Your task to perform on an android device: clear all cookies in the chrome app Image 0: 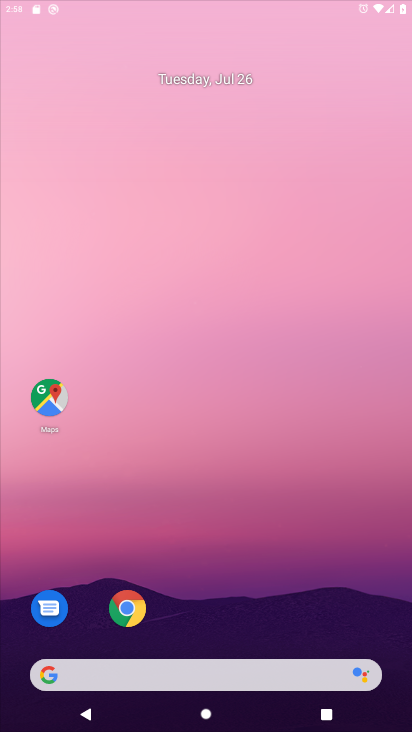
Step 0: press home button
Your task to perform on an android device: clear all cookies in the chrome app Image 1: 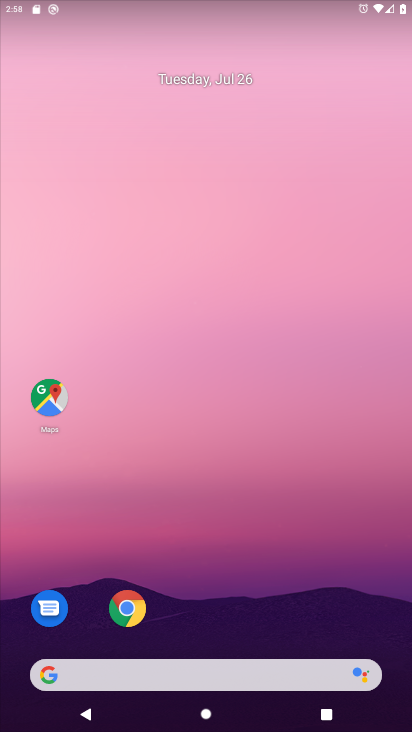
Step 1: click (127, 610)
Your task to perform on an android device: clear all cookies in the chrome app Image 2: 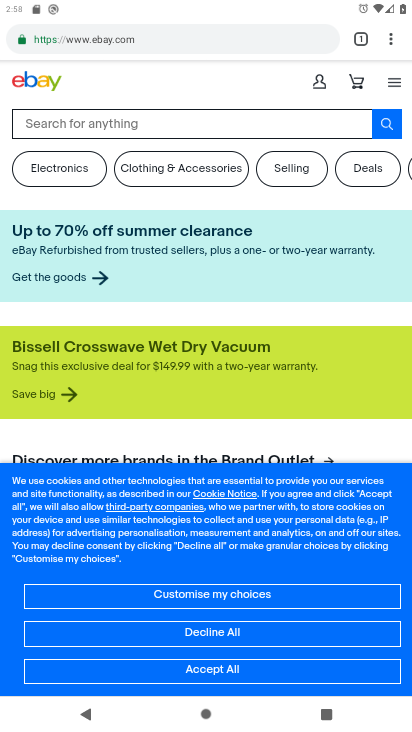
Step 2: click (394, 37)
Your task to perform on an android device: clear all cookies in the chrome app Image 3: 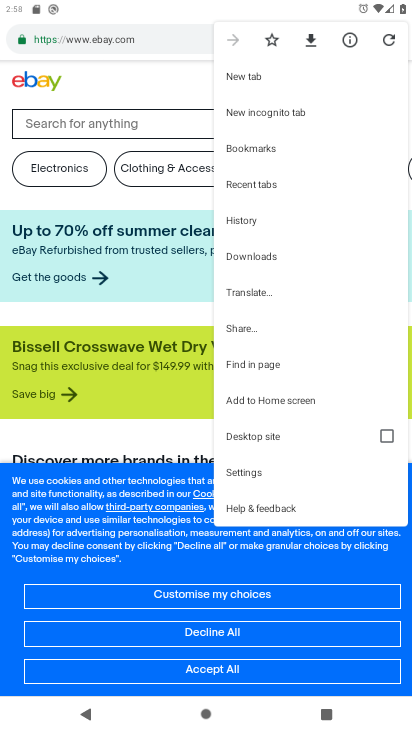
Step 3: click (263, 215)
Your task to perform on an android device: clear all cookies in the chrome app Image 4: 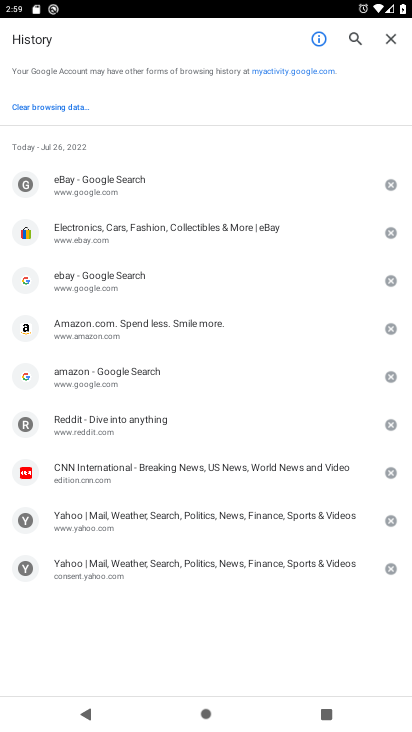
Step 4: click (49, 102)
Your task to perform on an android device: clear all cookies in the chrome app Image 5: 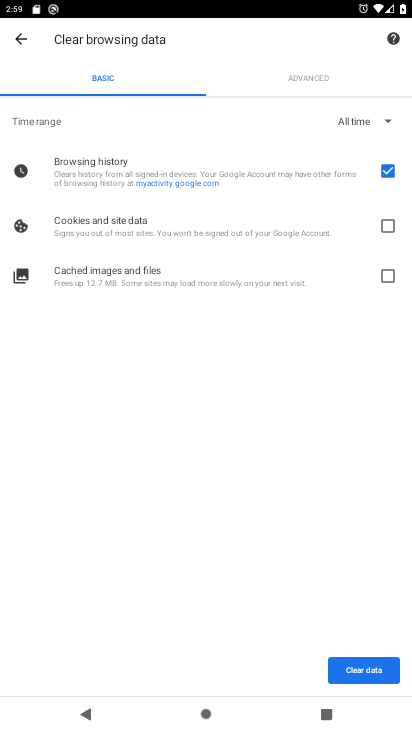
Step 5: click (379, 224)
Your task to perform on an android device: clear all cookies in the chrome app Image 6: 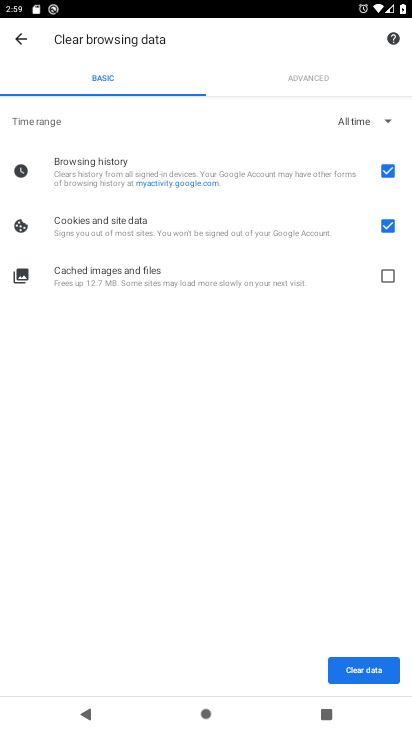
Step 6: click (391, 283)
Your task to perform on an android device: clear all cookies in the chrome app Image 7: 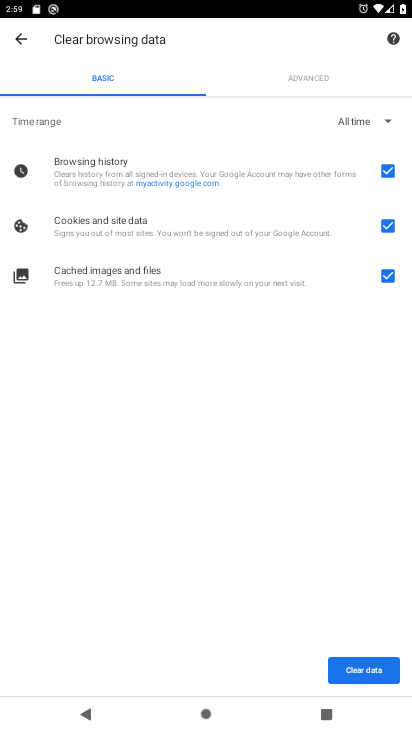
Step 7: click (382, 669)
Your task to perform on an android device: clear all cookies in the chrome app Image 8: 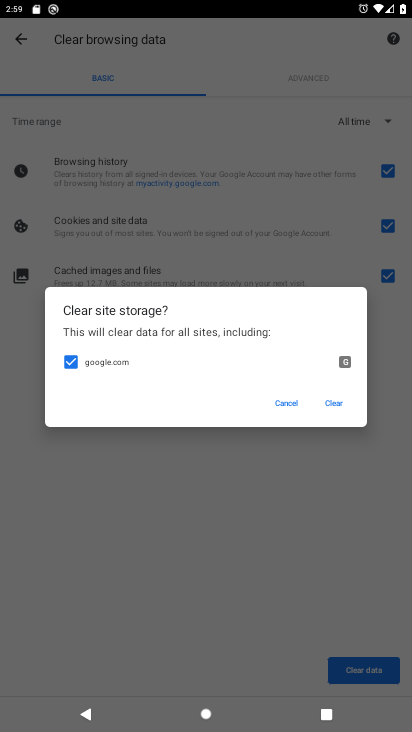
Step 8: click (333, 407)
Your task to perform on an android device: clear all cookies in the chrome app Image 9: 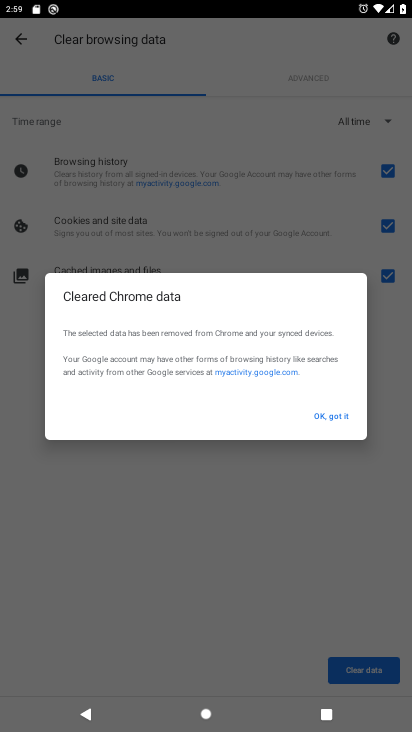
Step 9: click (339, 413)
Your task to perform on an android device: clear all cookies in the chrome app Image 10: 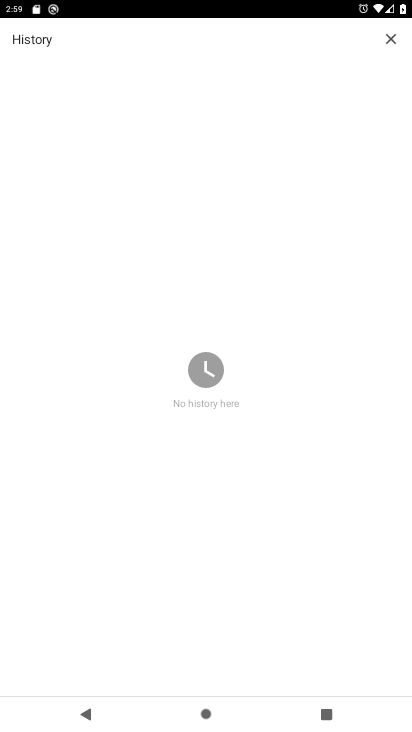
Step 10: task complete